Your task to perform on an android device: toggle translation in the chrome app Image 0: 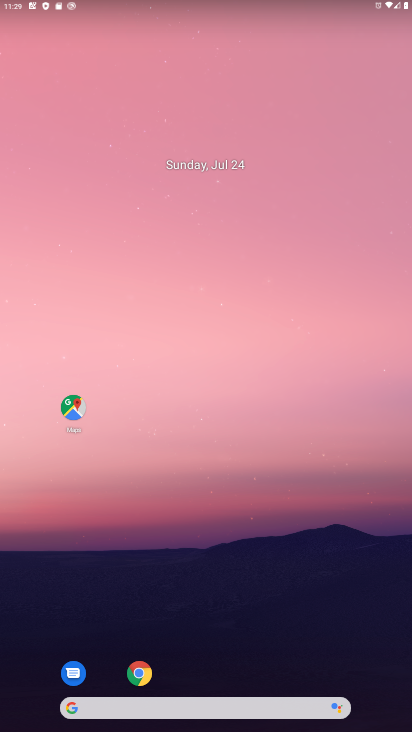
Step 0: drag from (330, 648) to (211, 182)
Your task to perform on an android device: toggle translation in the chrome app Image 1: 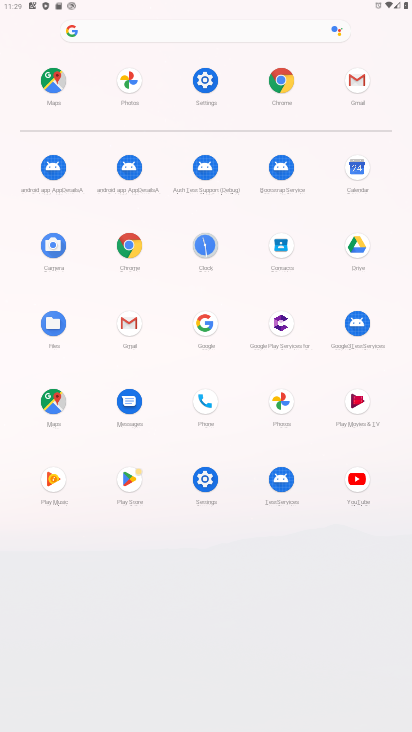
Step 1: click (125, 249)
Your task to perform on an android device: toggle translation in the chrome app Image 2: 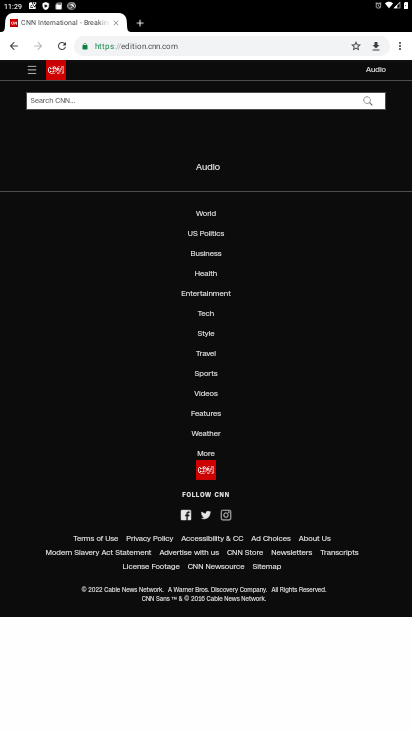
Step 2: drag from (400, 52) to (312, 339)
Your task to perform on an android device: toggle translation in the chrome app Image 3: 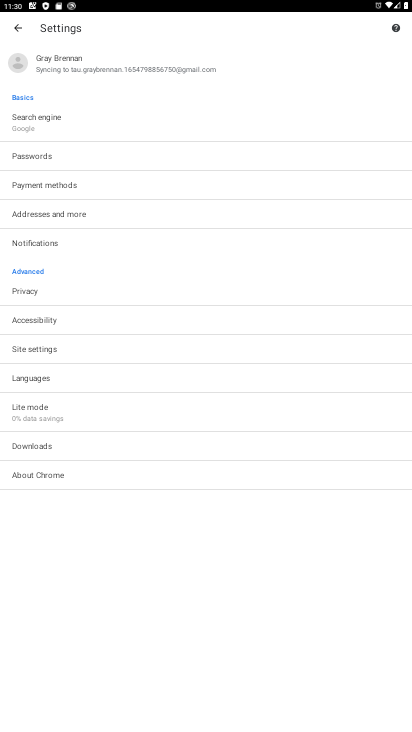
Step 3: click (55, 380)
Your task to perform on an android device: toggle translation in the chrome app Image 4: 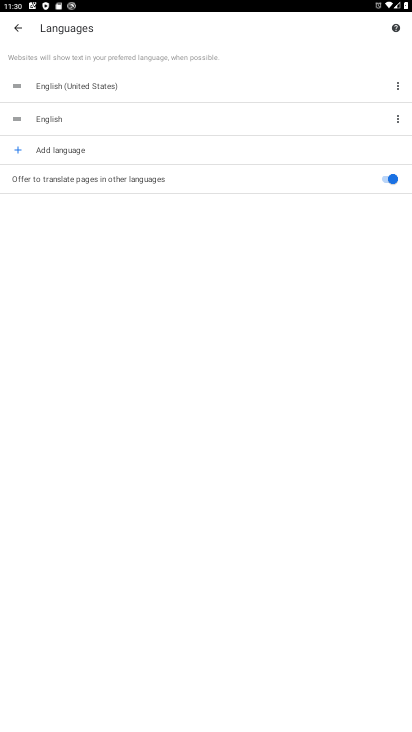
Step 4: click (387, 179)
Your task to perform on an android device: toggle translation in the chrome app Image 5: 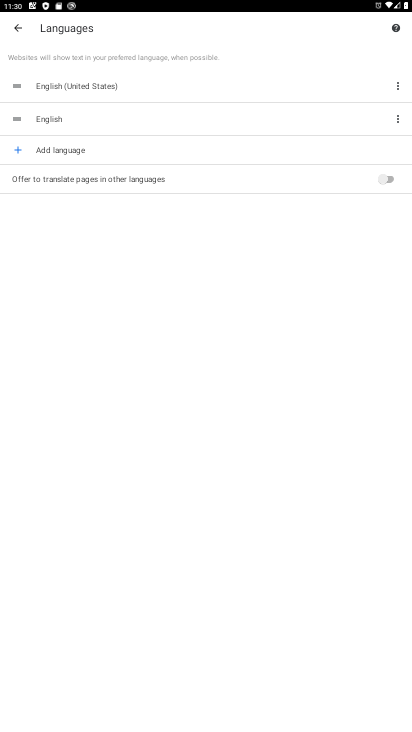
Step 5: task complete